Your task to perform on an android device: refresh tabs in the chrome app Image 0: 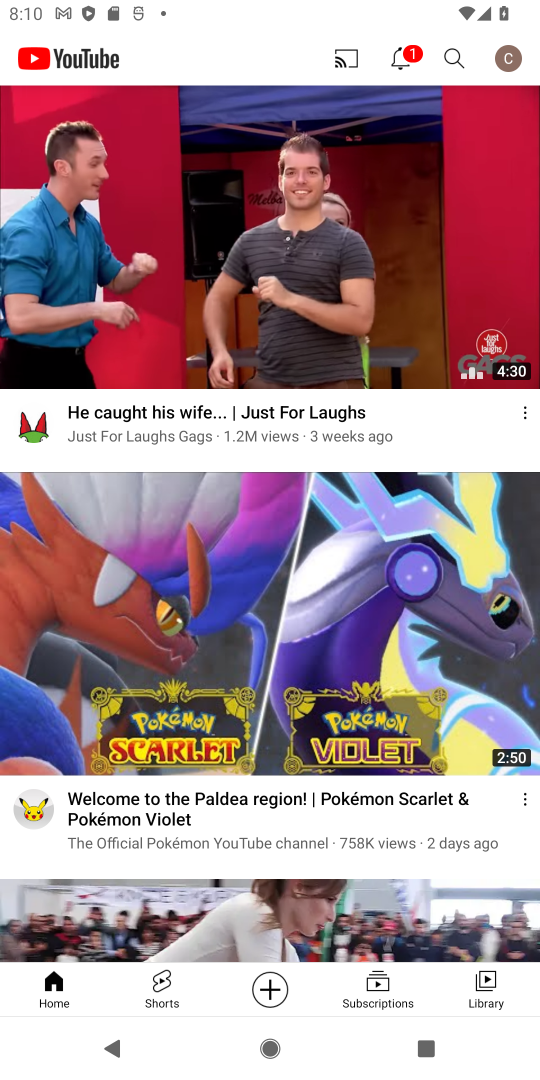
Step 0: press home button
Your task to perform on an android device: refresh tabs in the chrome app Image 1: 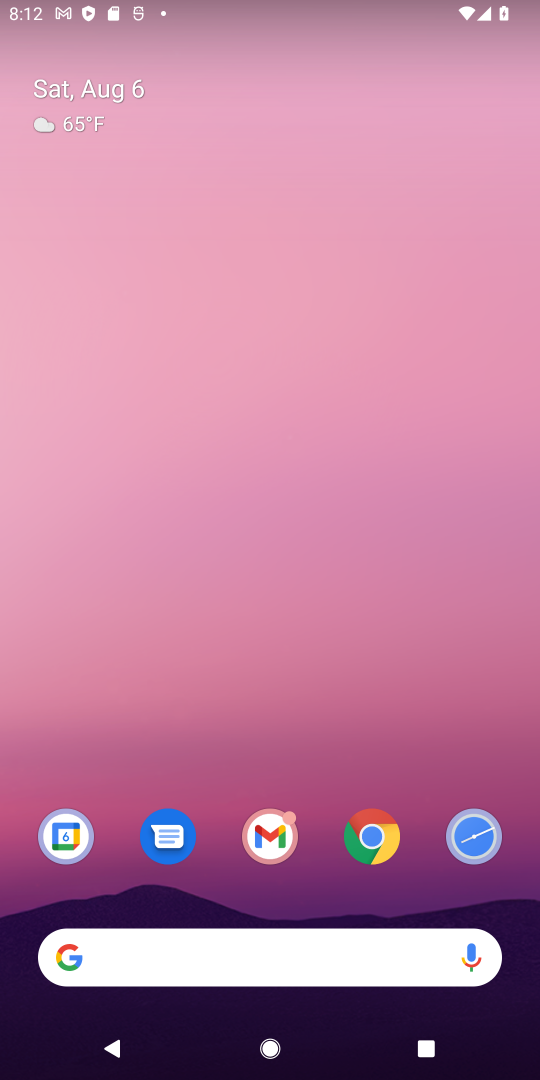
Step 1: drag from (418, 863) to (348, 101)
Your task to perform on an android device: refresh tabs in the chrome app Image 2: 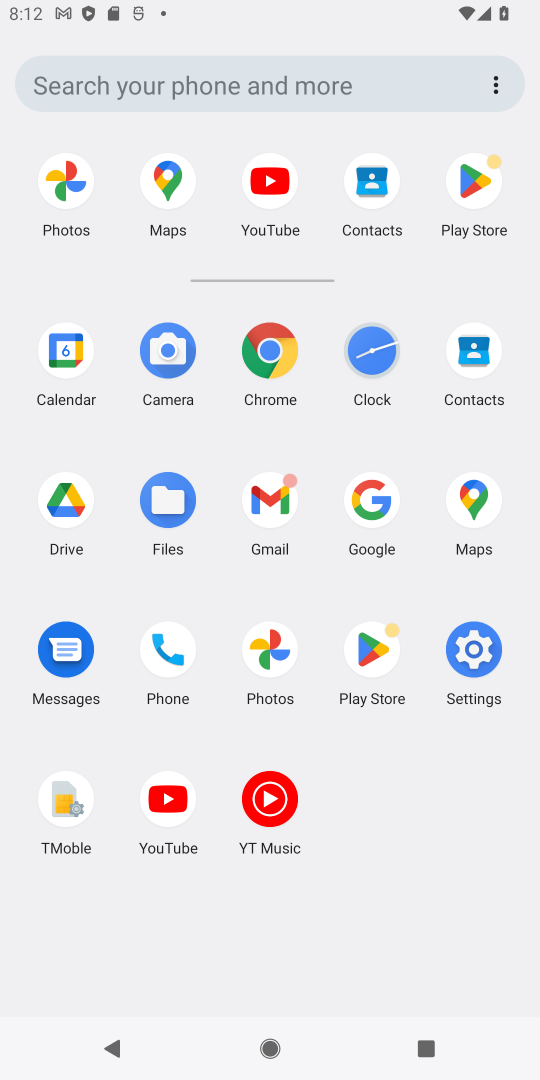
Step 2: click (282, 349)
Your task to perform on an android device: refresh tabs in the chrome app Image 3: 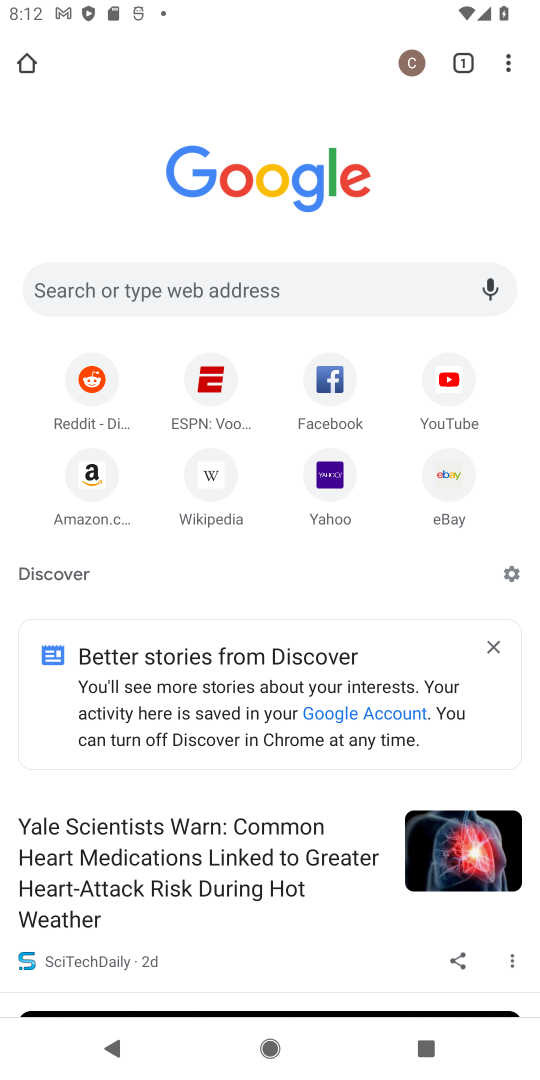
Step 3: click (508, 50)
Your task to perform on an android device: refresh tabs in the chrome app Image 4: 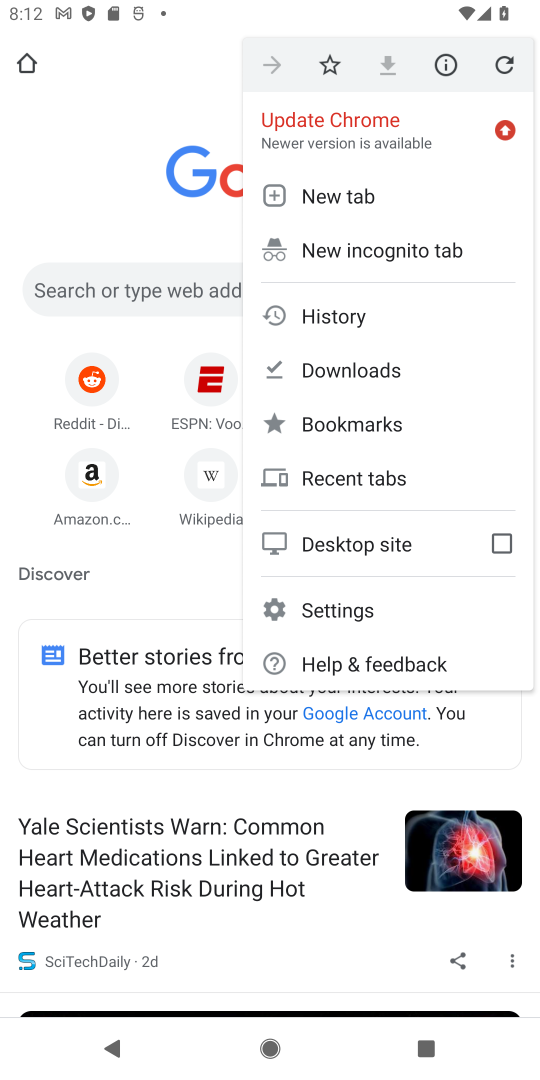
Step 4: click (508, 64)
Your task to perform on an android device: refresh tabs in the chrome app Image 5: 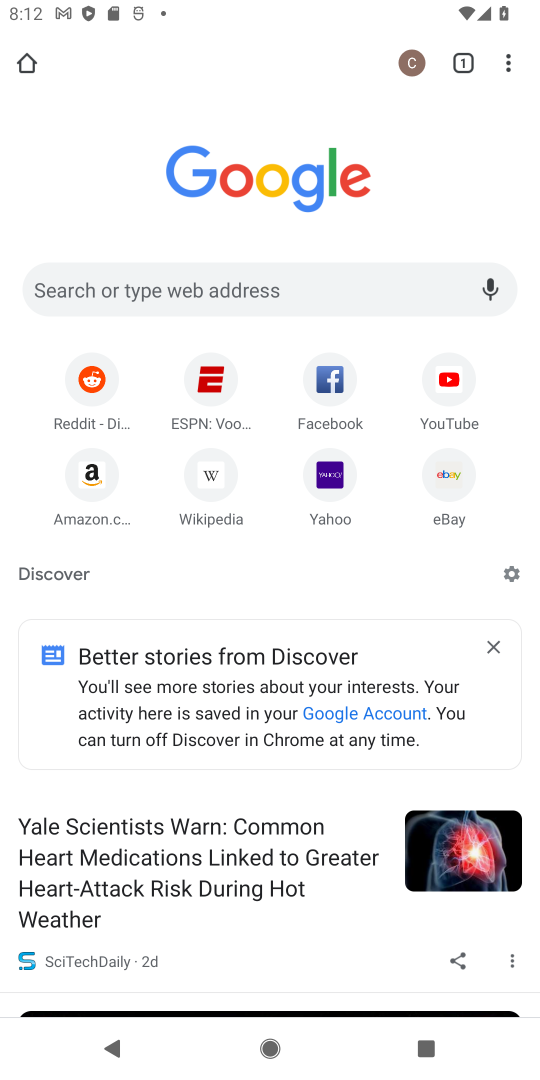
Step 5: task complete